Your task to perform on an android device: Open sound settings Image 0: 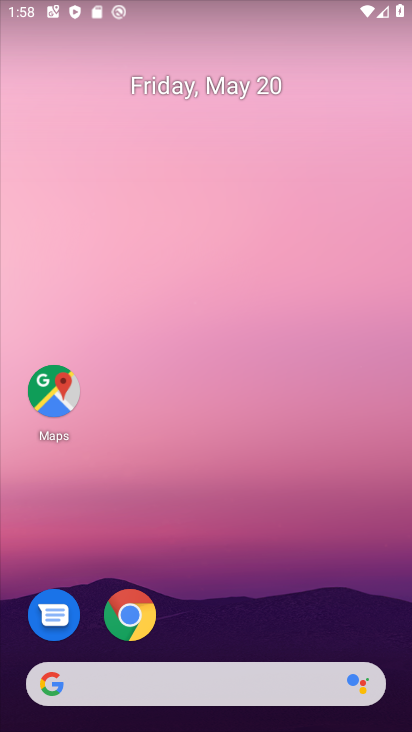
Step 0: drag from (205, 603) to (223, 253)
Your task to perform on an android device: Open sound settings Image 1: 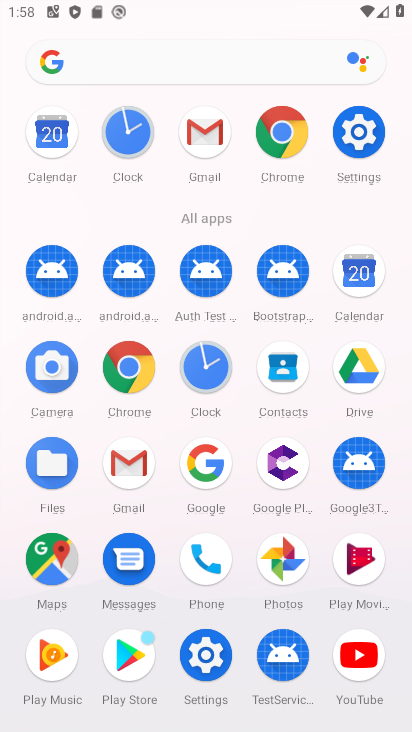
Step 1: click (361, 145)
Your task to perform on an android device: Open sound settings Image 2: 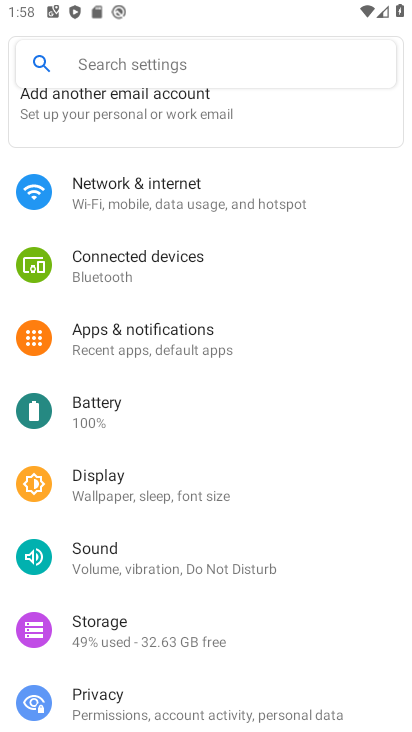
Step 2: click (145, 447)
Your task to perform on an android device: Open sound settings Image 3: 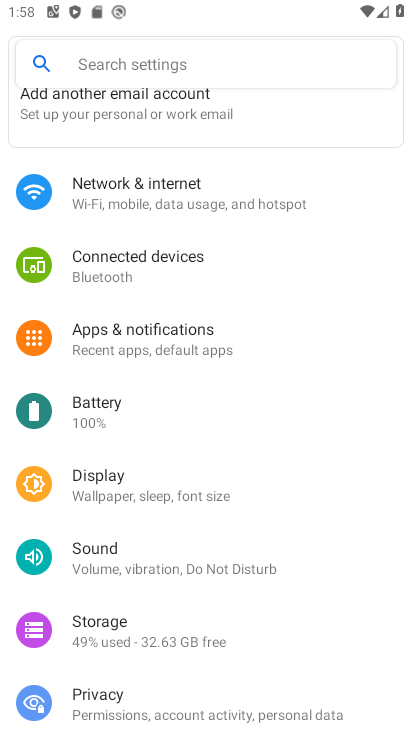
Step 3: click (150, 590)
Your task to perform on an android device: Open sound settings Image 4: 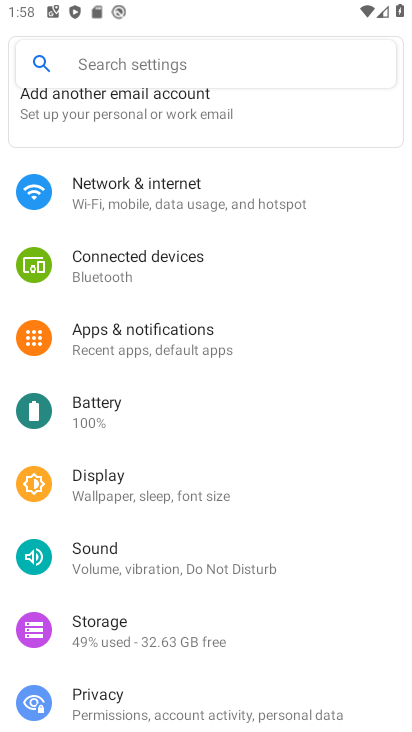
Step 4: click (144, 547)
Your task to perform on an android device: Open sound settings Image 5: 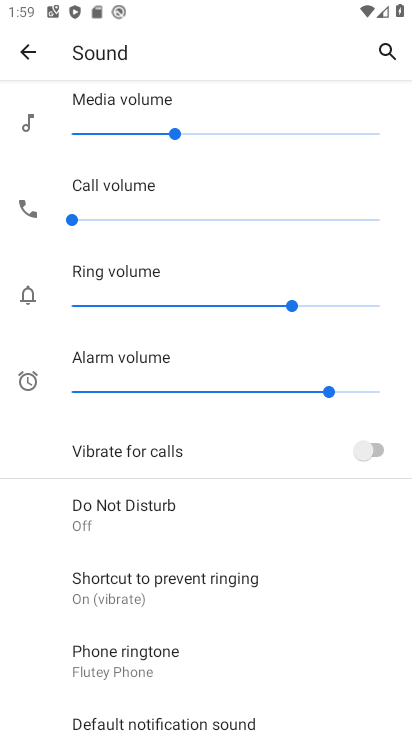
Step 5: task complete